Your task to perform on an android device: Go to notification settings Image 0: 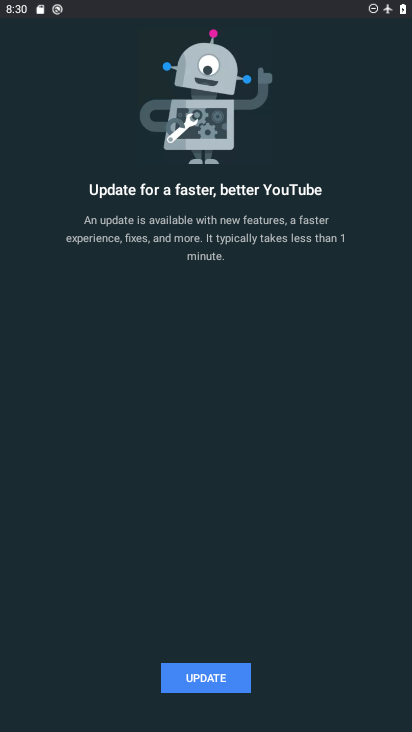
Step 0: press home button
Your task to perform on an android device: Go to notification settings Image 1: 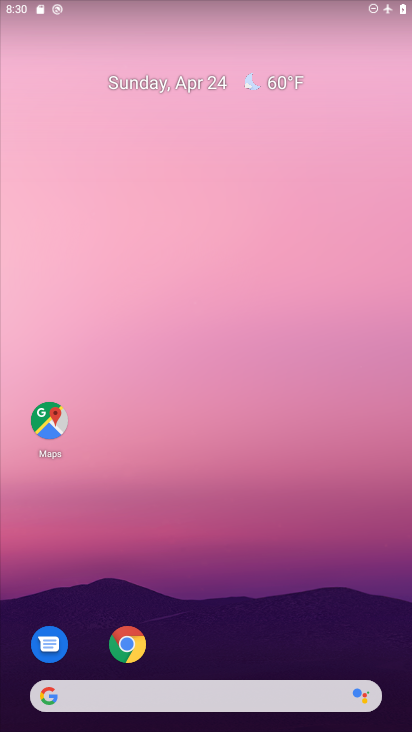
Step 1: drag from (209, 662) to (234, 32)
Your task to perform on an android device: Go to notification settings Image 2: 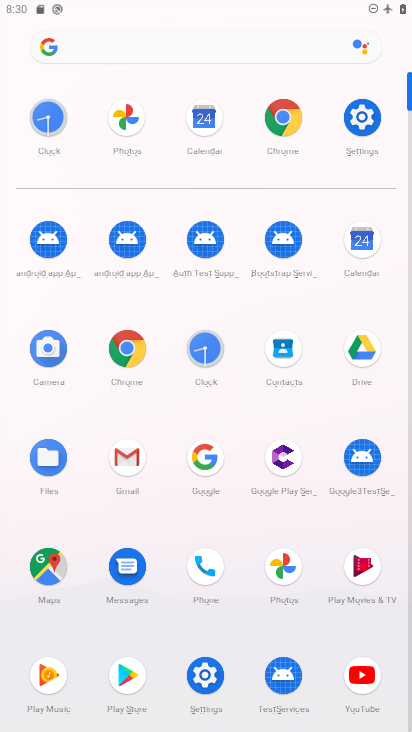
Step 2: click (359, 112)
Your task to perform on an android device: Go to notification settings Image 3: 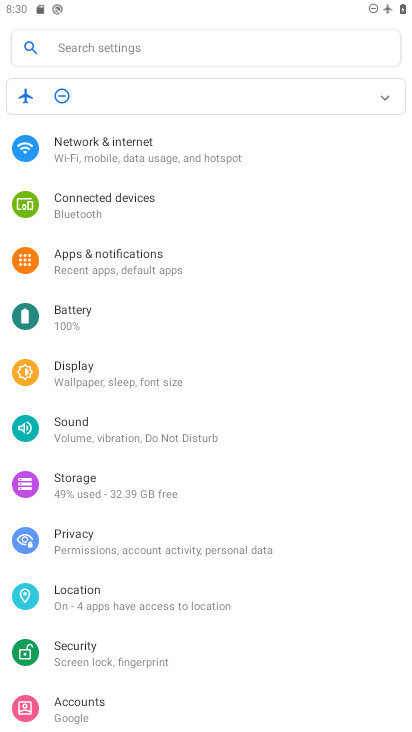
Step 3: click (171, 257)
Your task to perform on an android device: Go to notification settings Image 4: 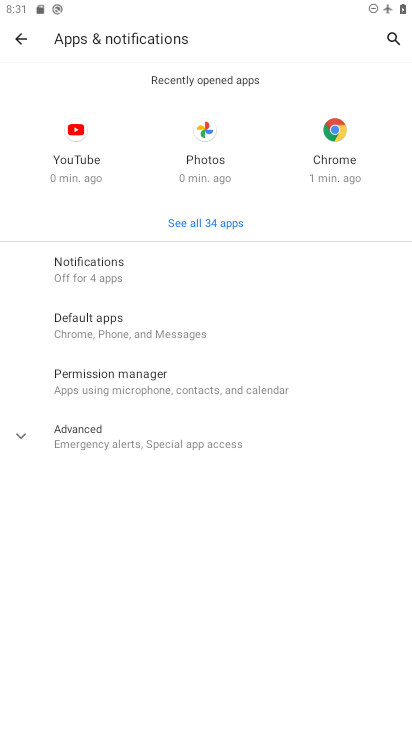
Step 4: click (139, 263)
Your task to perform on an android device: Go to notification settings Image 5: 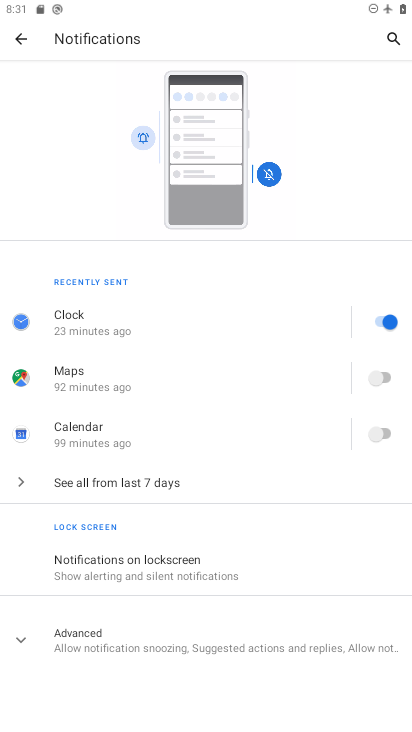
Step 5: click (379, 375)
Your task to perform on an android device: Go to notification settings Image 6: 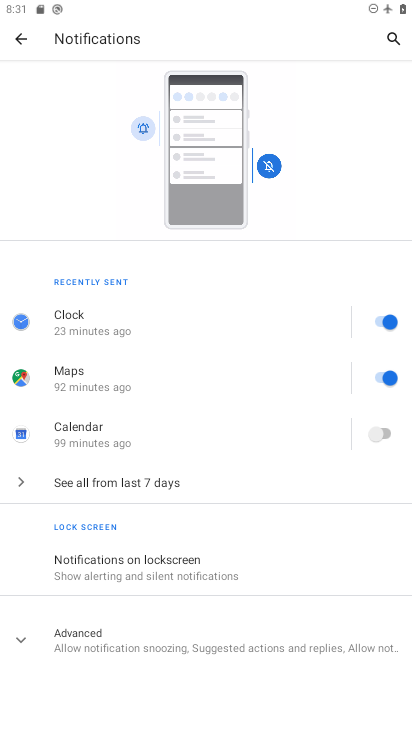
Step 6: click (382, 425)
Your task to perform on an android device: Go to notification settings Image 7: 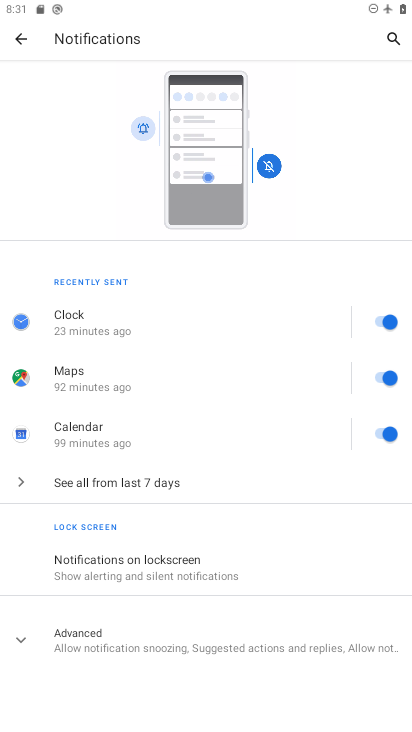
Step 7: click (139, 478)
Your task to perform on an android device: Go to notification settings Image 8: 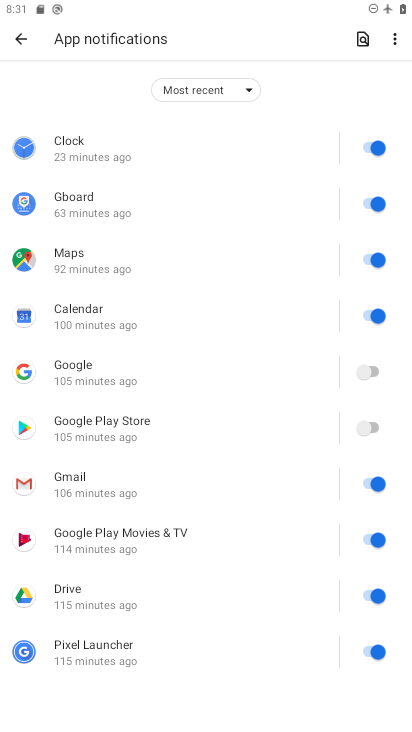
Step 8: task complete